Your task to perform on an android device: change the clock style Image 0: 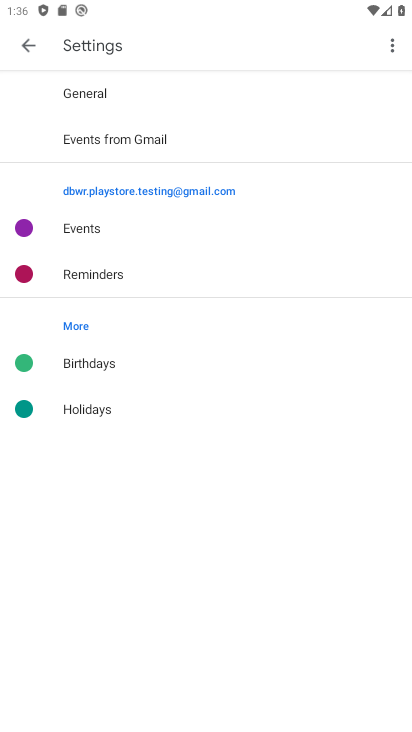
Step 0: press home button
Your task to perform on an android device: change the clock style Image 1: 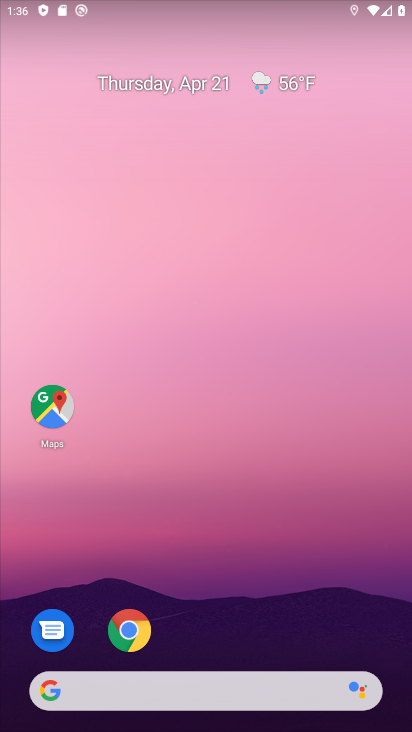
Step 1: drag from (242, 604) to (184, 30)
Your task to perform on an android device: change the clock style Image 2: 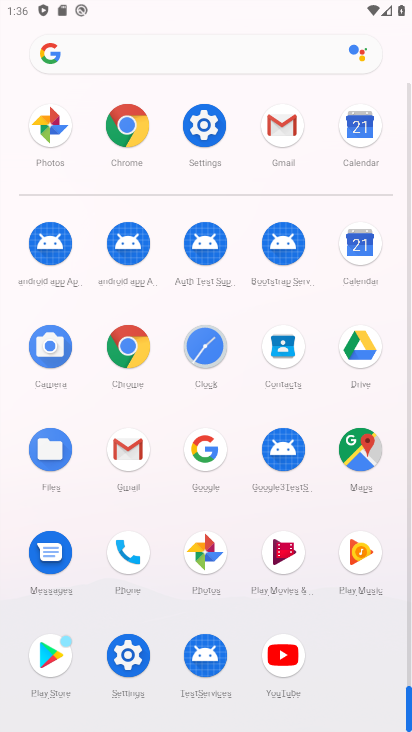
Step 2: click (206, 346)
Your task to perform on an android device: change the clock style Image 3: 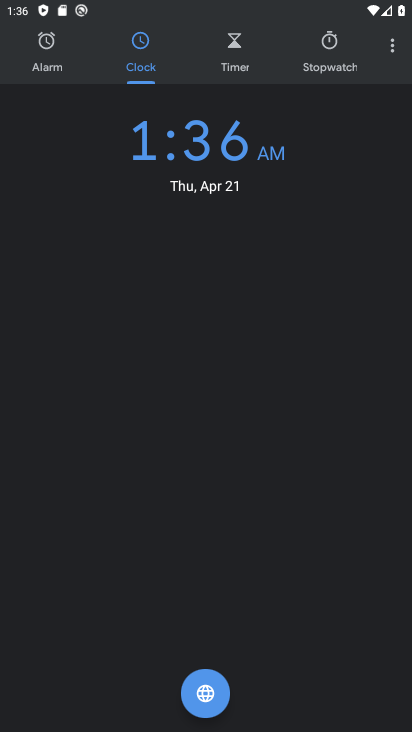
Step 3: click (385, 54)
Your task to perform on an android device: change the clock style Image 4: 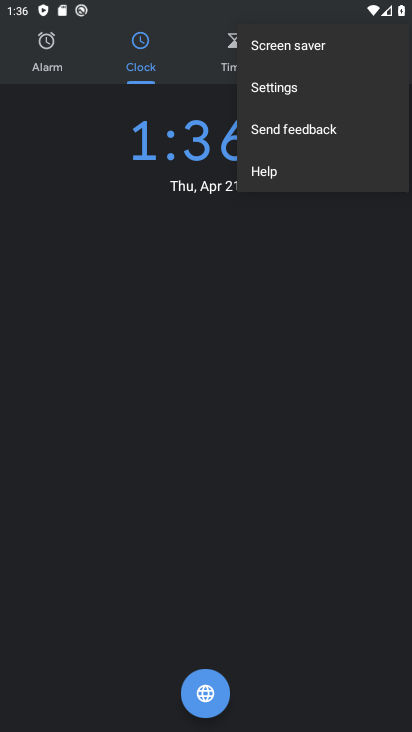
Step 4: click (311, 91)
Your task to perform on an android device: change the clock style Image 5: 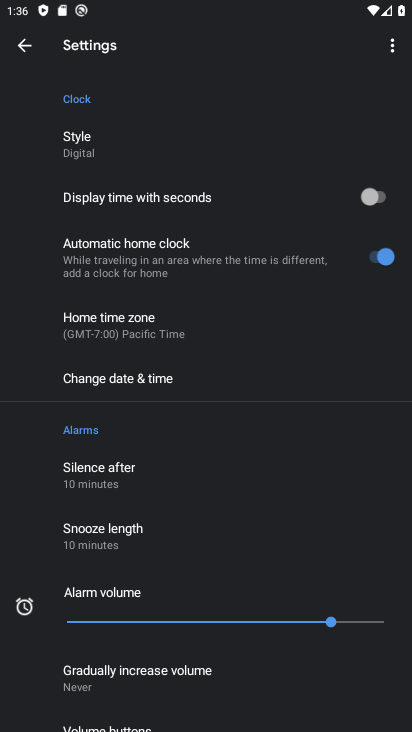
Step 5: click (145, 138)
Your task to perform on an android device: change the clock style Image 6: 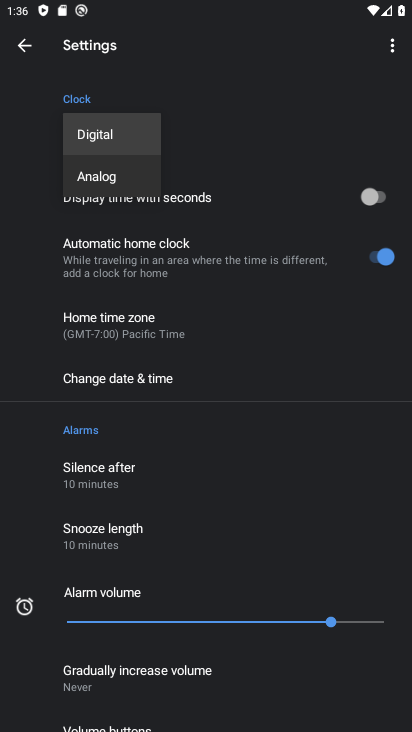
Step 6: click (113, 184)
Your task to perform on an android device: change the clock style Image 7: 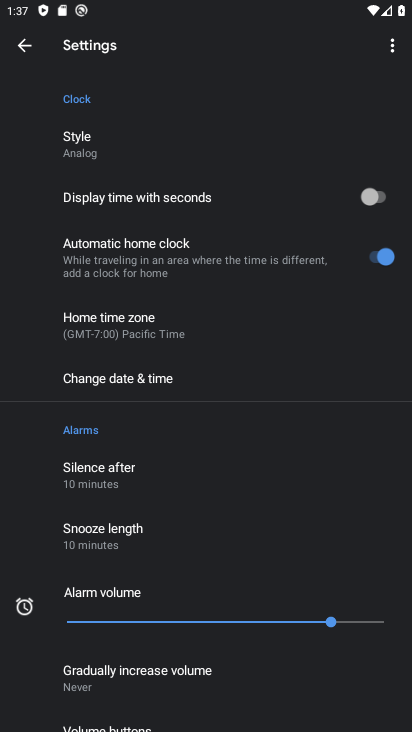
Step 7: task complete